Your task to perform on an android device: turn on data saver in the chrome app Image 0: 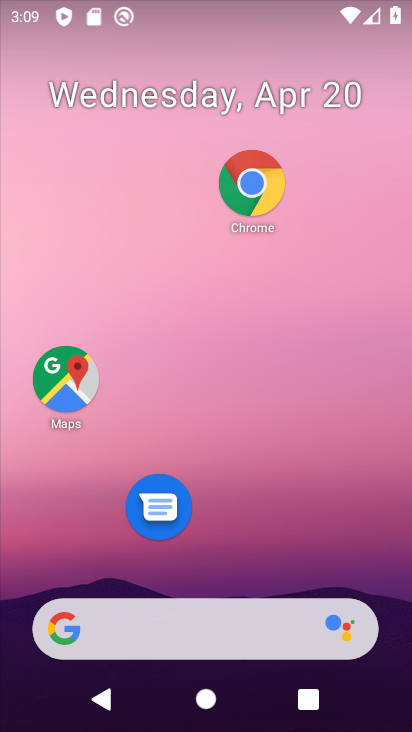
Step 0: click (234, 206)
Your task to perform on an android device: turn on data saver in the chrome app Image 1: 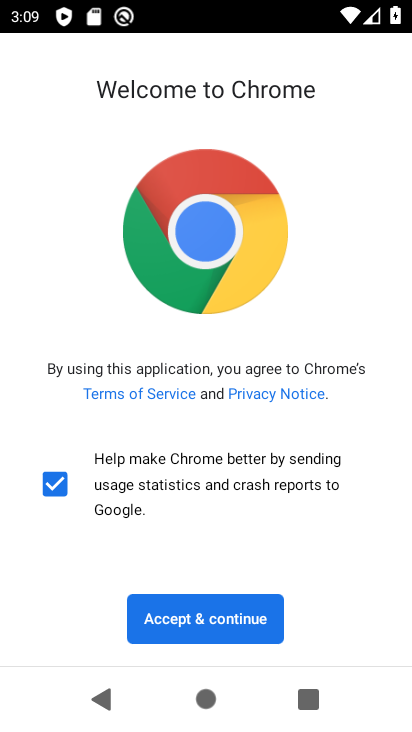
Step 1: click (235, 606)
Your task to perform on an android device: turn on data saver in the chrome app Image 2: 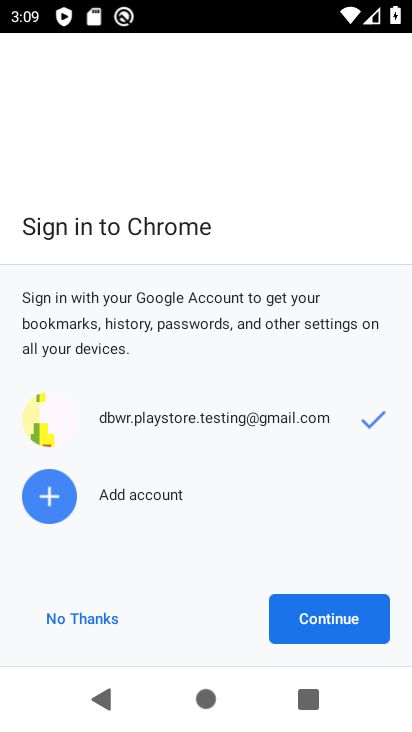
Step 2: click (284, 601)
Your task to perform on an android device: turn on data saver in the chrome app Image 3: 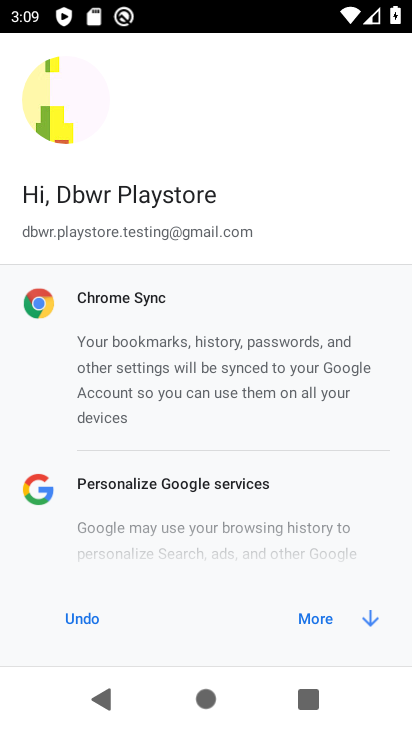
Step 3: click (294, 602)
Your task to perform on an android device: turn on data saver in the chrome app Image 4: 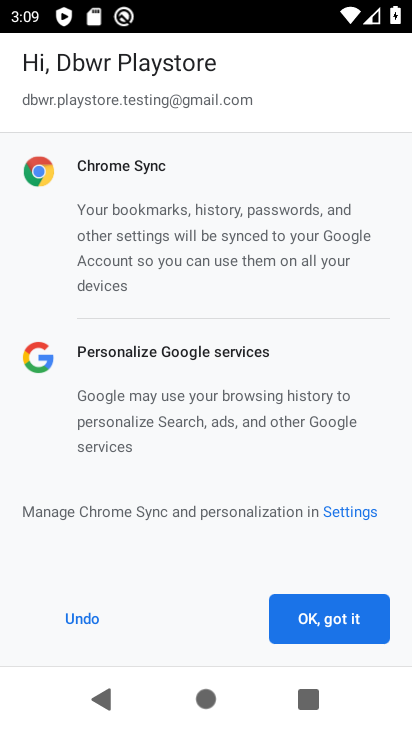
Step 4: click (352, 614)
Your task to perform on an android device: turn on data saver in the chrome app Image 5: 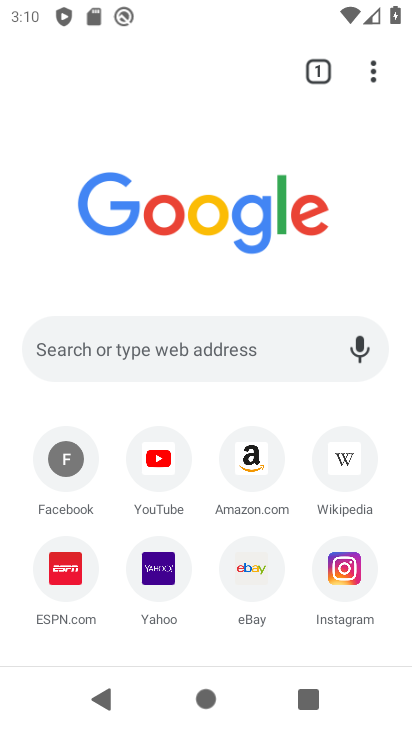
Step 5: click (374, 74)
Your task to perform on an android device: turn on data saver in the chrome app Image 6: 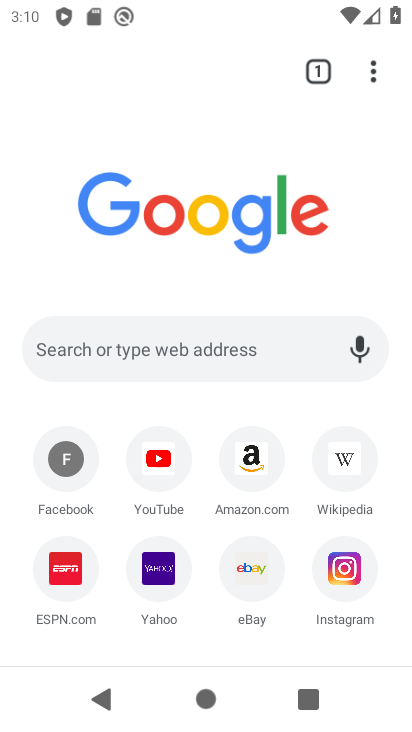
Step 6: click (368, 73)
Your task to perform on an android device: turn on data saver in the chrome app Image 7: 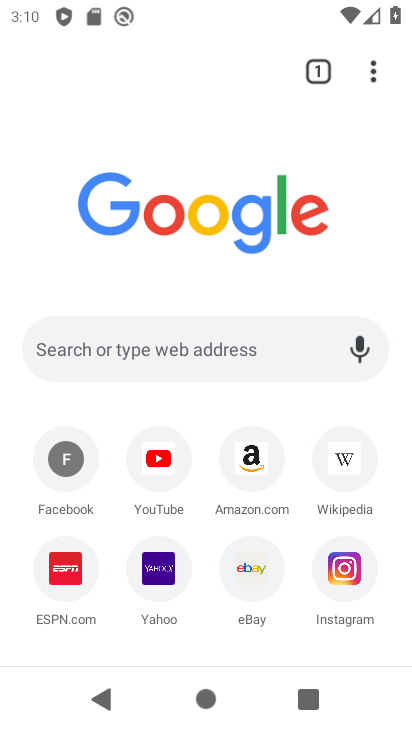
Step 7: drag from (371, 75) to (157, 509)
Your task to perform on an android device: turn on data saver in the chrome app Image 8: 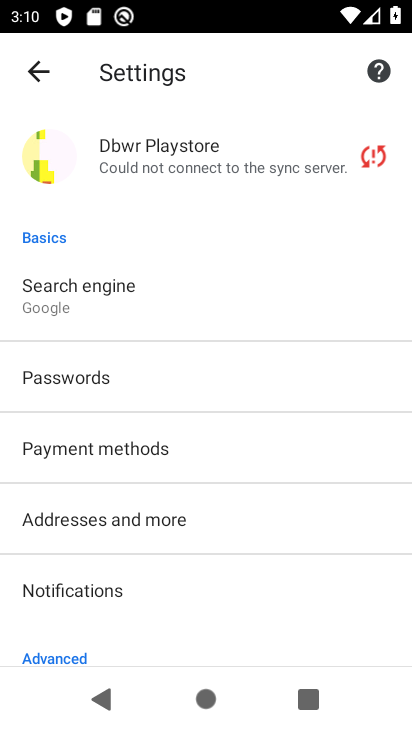
Step 8: drag from (202, 592) to (213, 252)
Your task to perform on an android device: turn on data saver in the chrome app Image 9: 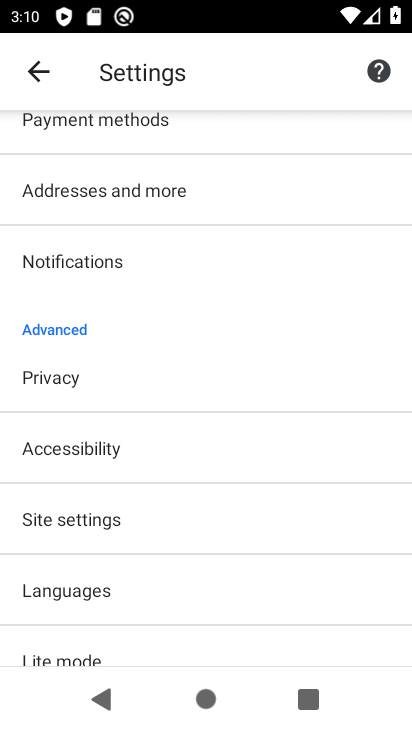
Step 9: drag from (163, 614) to (182, 355)
Your task to perform on an android device: turn on data saver in the chrome app Image 10: 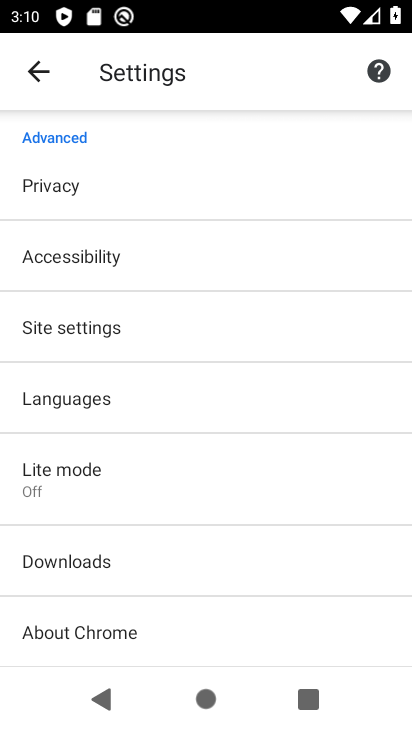
Step 10: click (93, 483)
Your task to perform on an android device: turn on data saver in the chrome app Image 11: 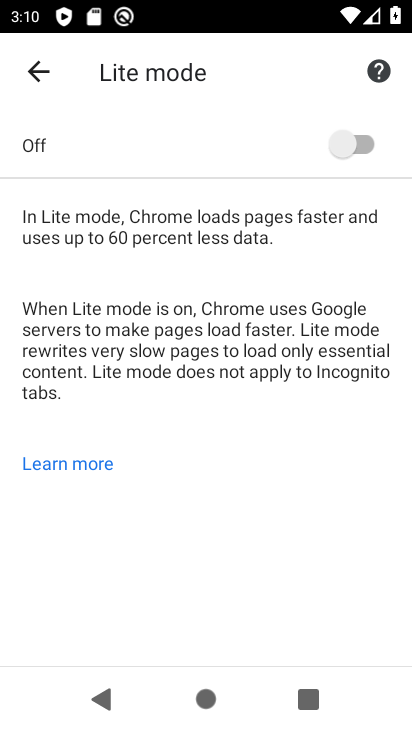
Step 11: click (362, 144)
Your task to perform on an android device: turn on data saver in the chrome app Image 12: 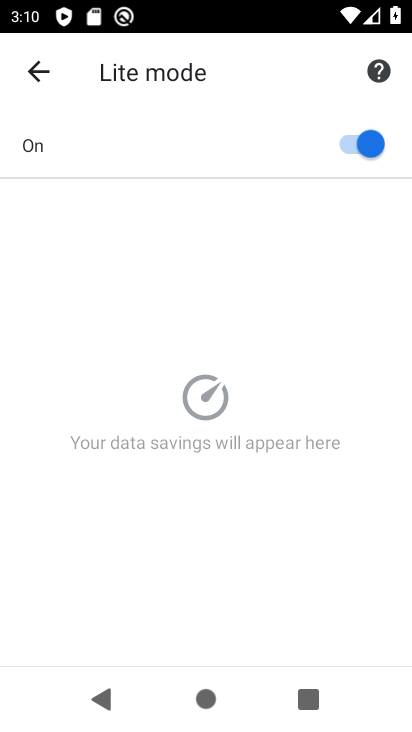
Step 12: task complete